Your task to perform on an android device: Open sound settings Image 0: 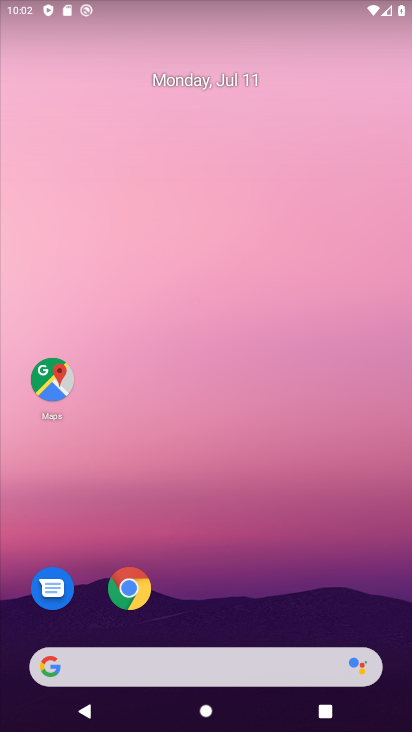
Step 0: drag from (176, 483) to (207, 213)
Your task to perform on an android device: Open sound settings Image 1: 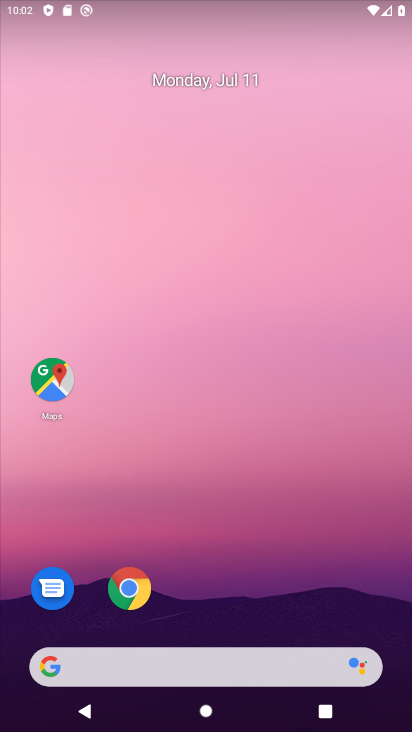
Step 1: drag from (196, 627) to (252, 160)
Your task to perform on an android device: Open sound settings Image 2: 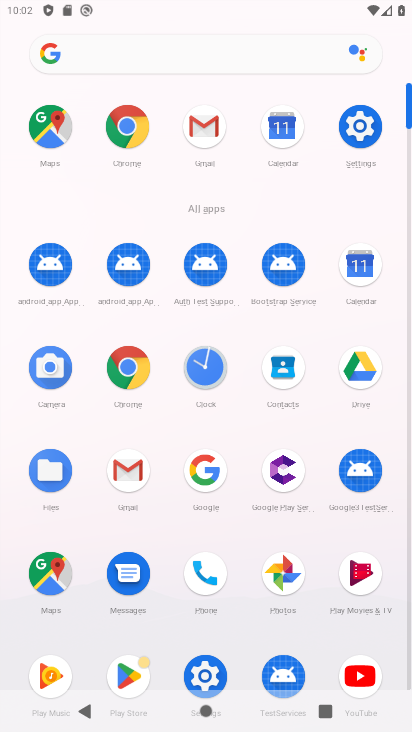
Step 2: click (199, 671)
Your task to perform on an android device: Open sound settings Image 3: 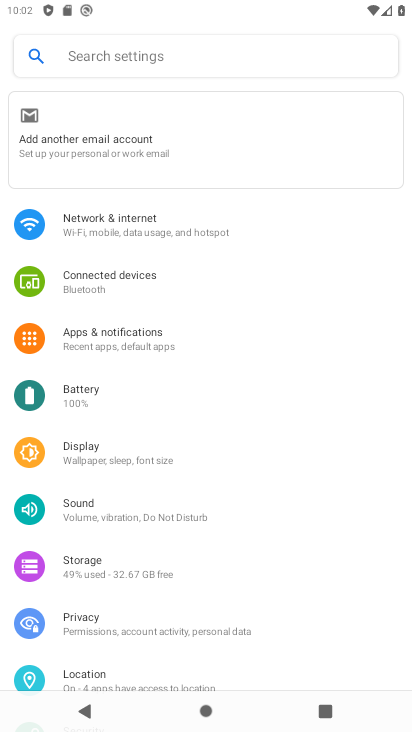
Step 3: click (115, 511)
Your task to perform on an android device: Open sound settings Image 4: 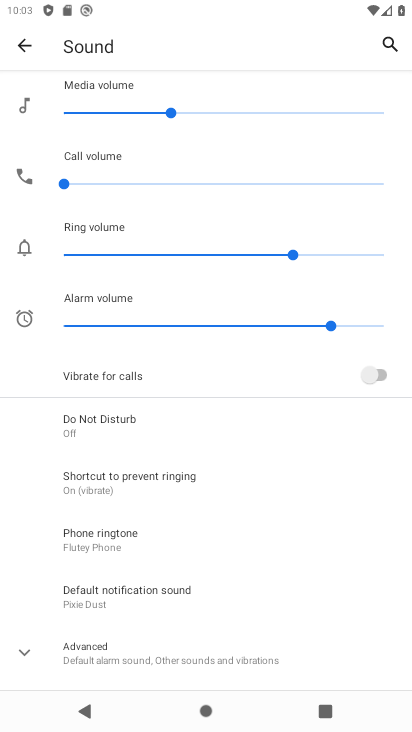
Step 4: task complete